Your task to perform on an android device: Search for "rayovac triple a" on ebay, select the first entry, and add it to the cart. Image 0: 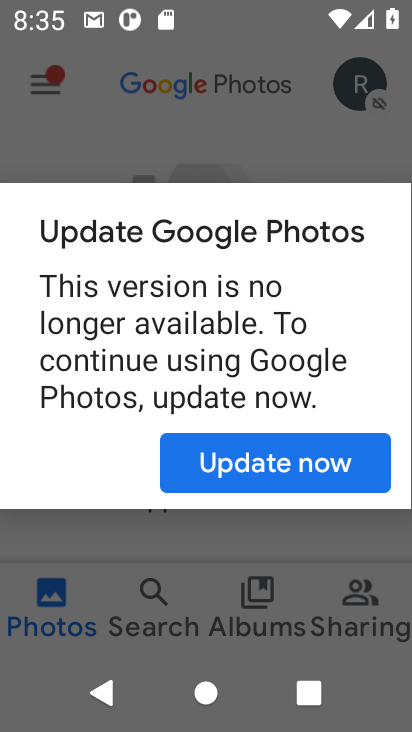
Step 0: press home button
Your task to perform on an android device: Search for "rayovac triple a" on ebay, select the first entry, and add it to the cart. Image 1: 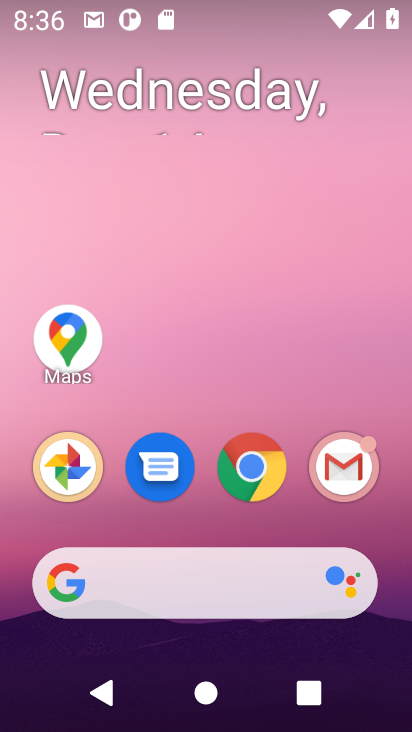
Step 1: click (251, 479)
Your task to perform on an android device: Search for "rayovac triple a" on ebay, select the first entry, and add it to the cart. Image 2: 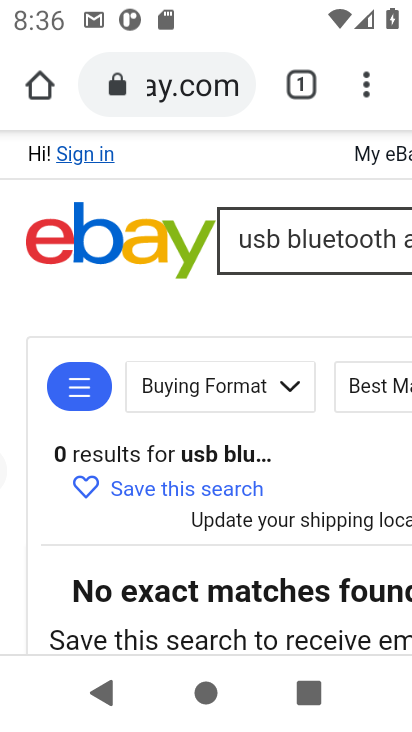
Step 2: click (285, 226)
Your task to perform on an android device: Search for "rayovac triple a" on ebay, select the first entry, and add it to the cart. Image 3: 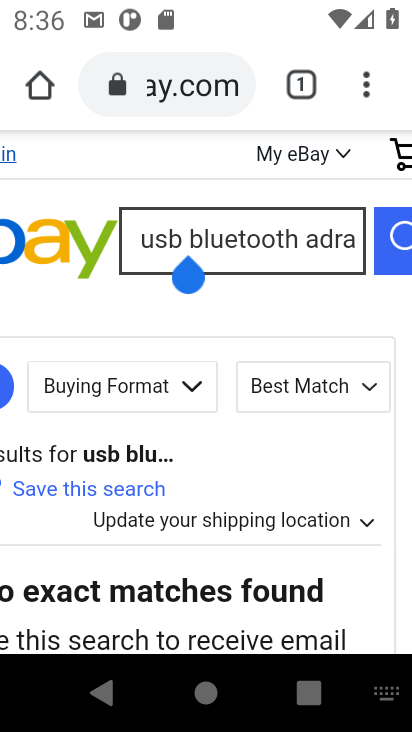
Step 3: click (285, 226)
Your task to perform on an android device: Search for "rayovac triple a" on ebay, select the first entry, and add it to the cart. Image 4: 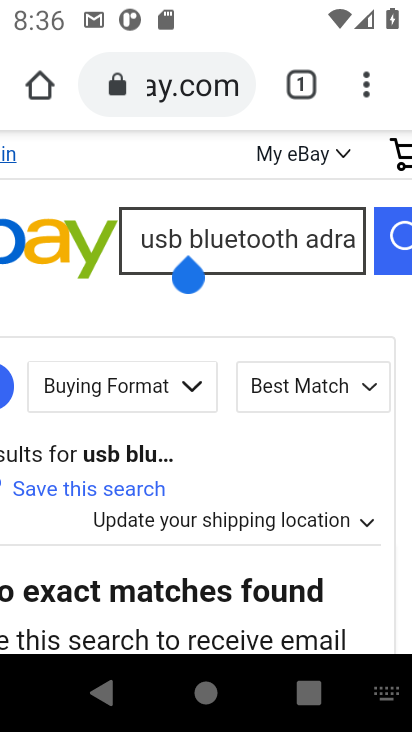
Step 4: click (285, 226)
Your task to perform on an android device: Search for "rayovac triple a" on ebay, select the first entry, and add it to the cart. Image 5: 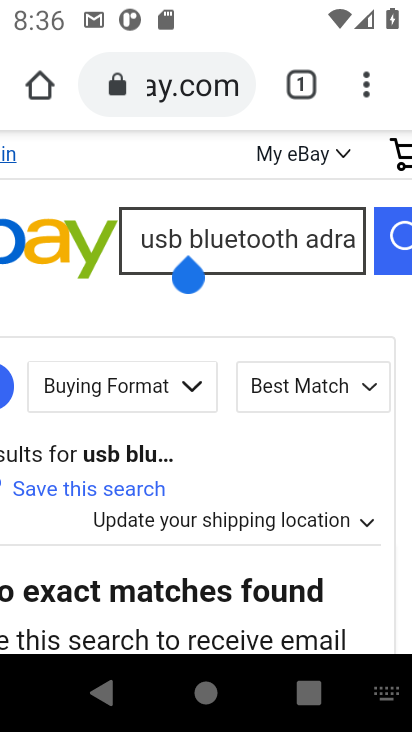
Step 5: click (285, 226)
Your task to perform on an android device: Search for "rayovac triple a" on ebay, select the first entry, and add it to the cart. Image 6: 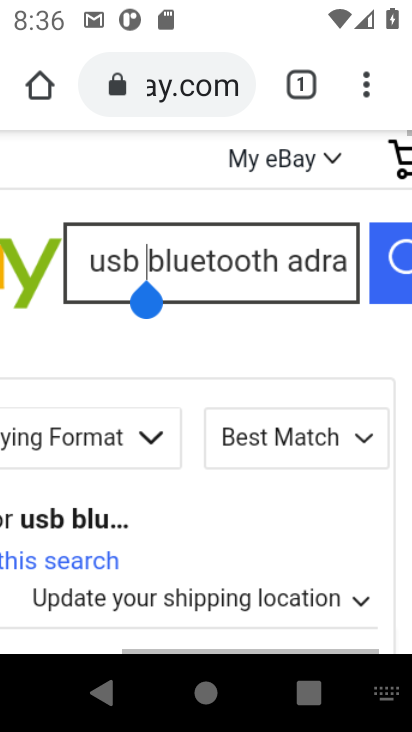
Step 6: click (285, 226)
Your task to perform on an android device: Search for "rayovac triple a" on ebay, select the first entry, and add it to the cart. Image 7: 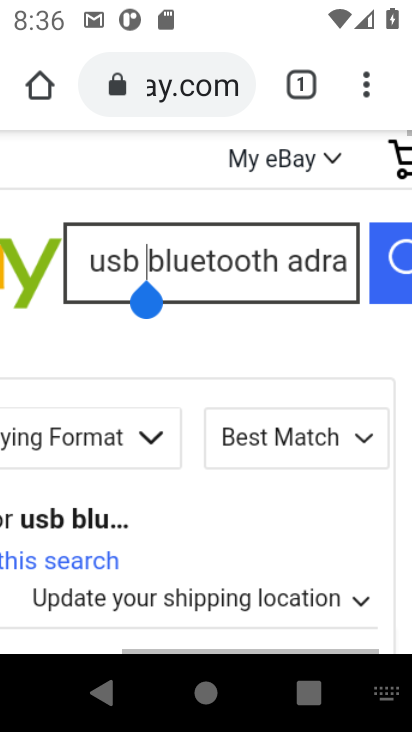
Step 7: click (285, 226)
Your task to perform on an android device: Search for "rayovac triple a" on ebay, select the first entry, and add it to the cart. Image 8: 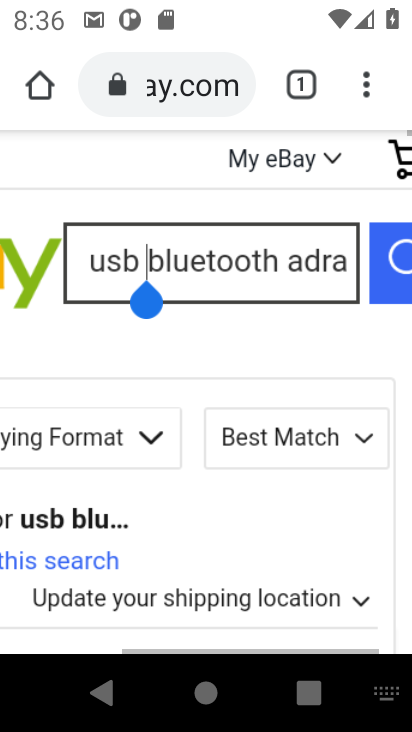
Step 8: click (285, 226)
Your task to perform on an android device: Search for "rayovac triple a" on ebay, select the first entry, and add it to the cart. Image 9: 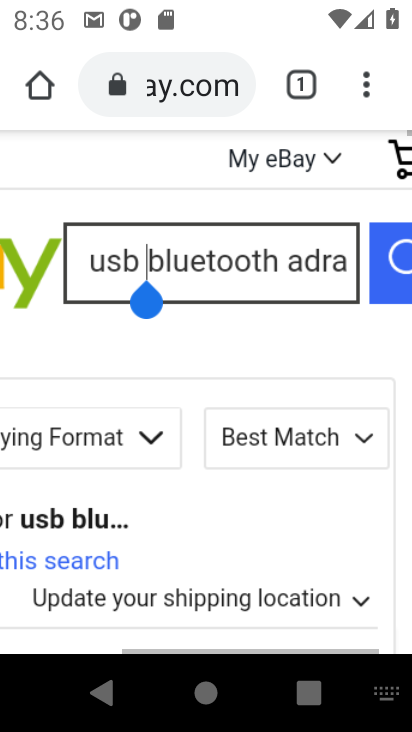
Step 9: click (285, 226)
Your task to perform on an android device: Search for "rayovac triple a" on ebay, select the first entry, and add it to the cart. Image 10: 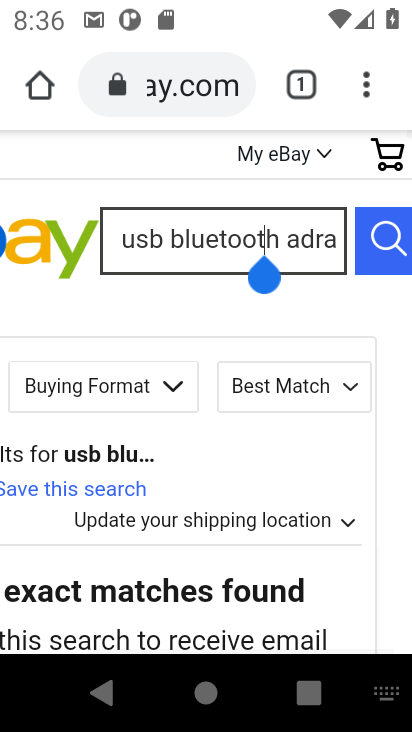
Step 10: click (325, 263)
Your task to perform on an android device: Search for "rayovac triple a" on ebay, select the first entry, and add it to the cart. Image 11: 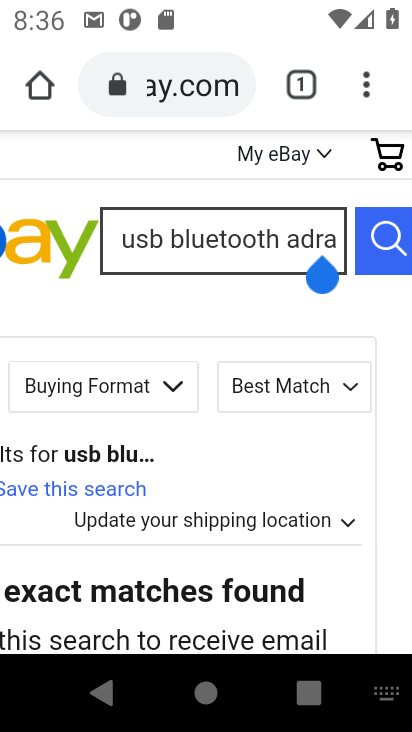
Step 11: click (325, 263)
Your task to perform on an android device: Search for "rayovac triple a" on ebay, select the first entry, and add it to the cart. Image 12: 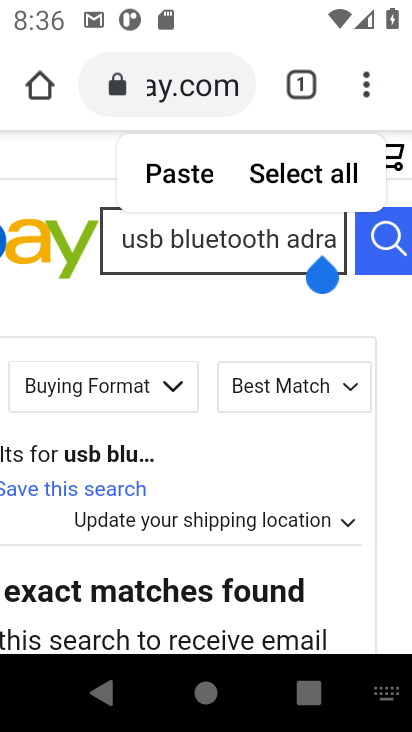
Step 12: click (322, 276)
Your task to perform on an android device: Search for "rayovac triple a" on ebay, select the first entry, and add it to the cart. Image 13: 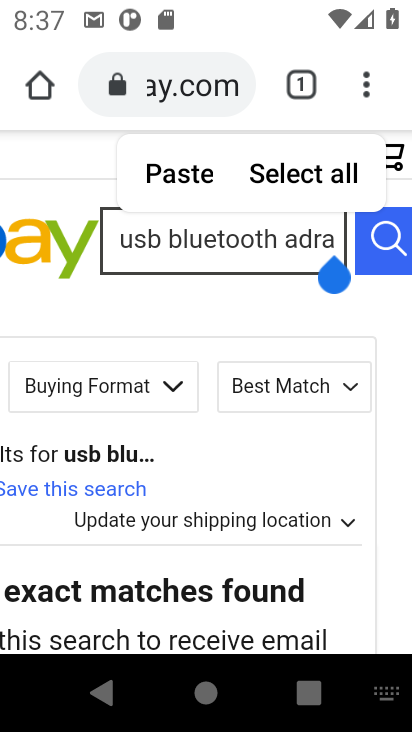
Step 13: drag from (318, 252) to (136, 242)
Your task to perform on an android device: Search for "rayovac triple a" on ebay, select the first entry, and add it to the cart. Image 14: 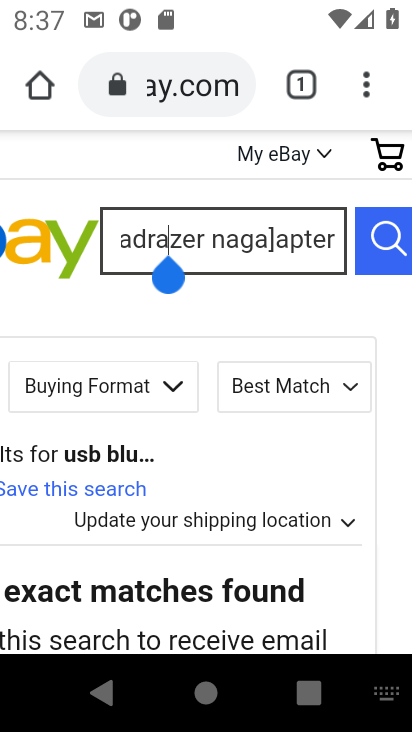
Step 14: drag from (316, 252) to (157, 262)
Your task to perform on an android device: Search for "rayovac triple a" on ebay, select the first entry, and add it to the cart. Image 15: 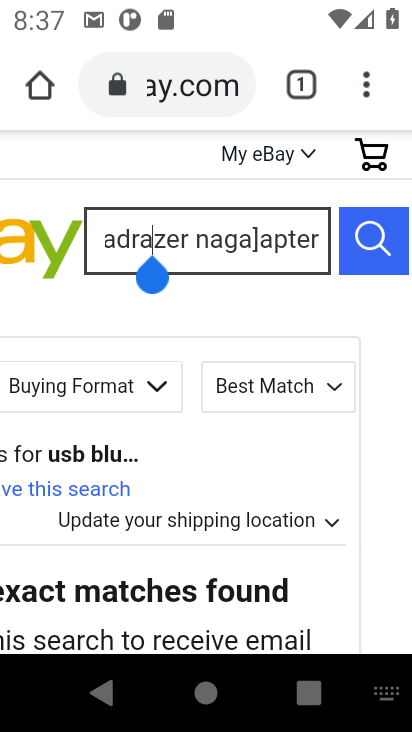
Step 15: click (301, 262)
Your task to perform on an android device: Search for "rayovac triple a" on ebay, select the first entry, and add it to the cart. Image 16: 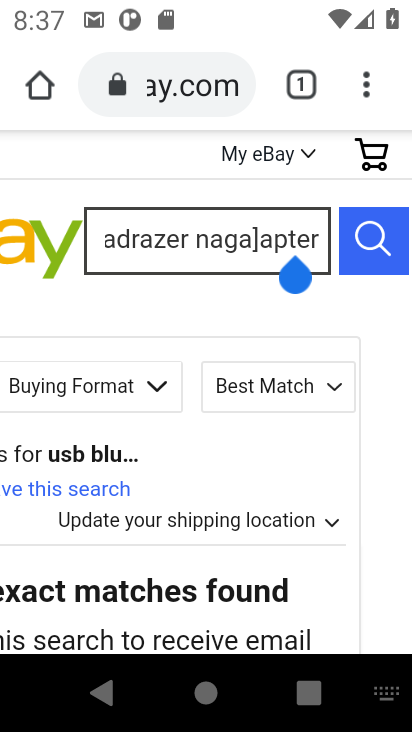
Step 16: drag from (292, 264) to (329, 265)
Your task to perform on an android device: Search for "rayovac triple a" on ebay, select the first entry, and add it to the cart. Image 17: 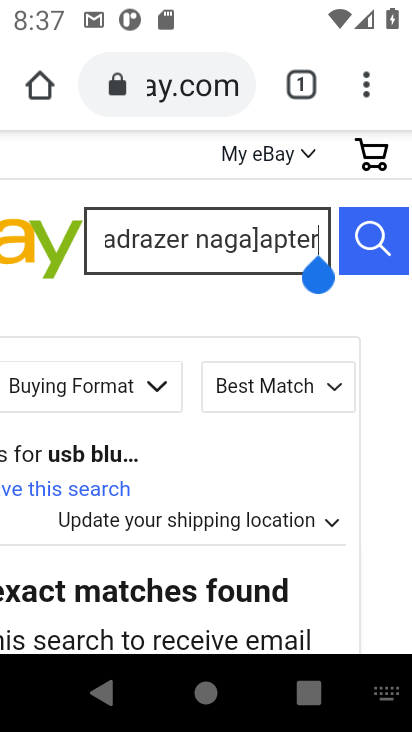
Step 17: click (175, 90)
Your task to perform on an android device: Search for "rayovac triple a" on ebay, select the first entry, and add it to the cart. Image 18: 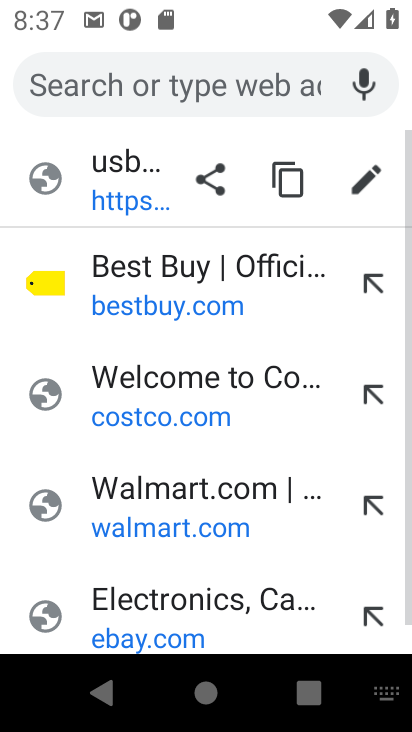
Step 18: click (130, 161)
Your task to perform on an android device: Search for "rayovac triple a" on ebay, select the first entry, and add it to the cart. Image 19: 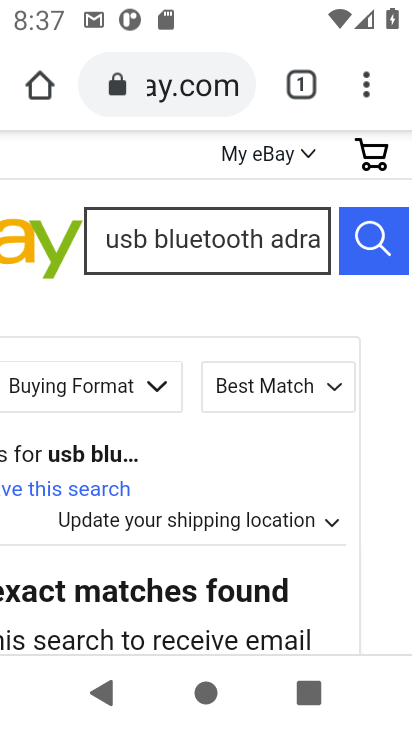
Step 19: task complete